Your task to perform on an android device: Check the weather Image 0: 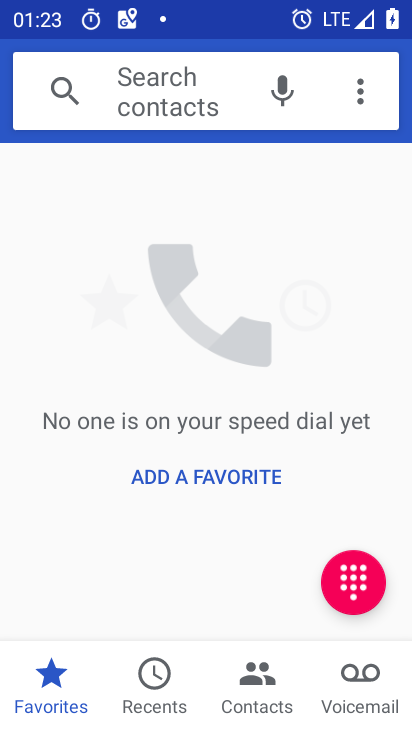
Step 0: press home button
Your task to perform on an android device: Check the weather Image 1: 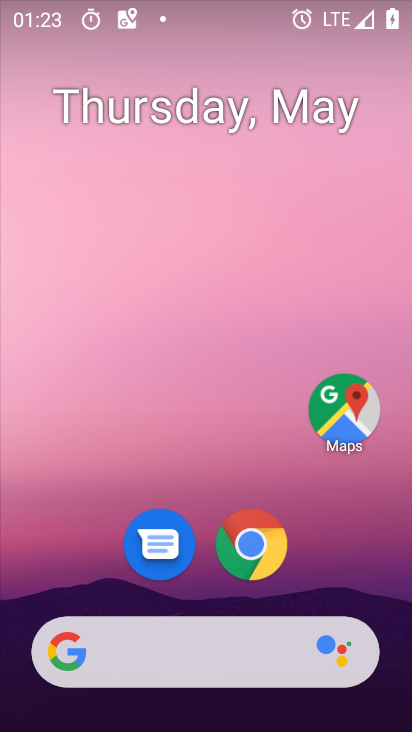
Step 1: drag from (363, 563) to (339, 135)
Your task to perform on an android device: Check the weather Image 2: 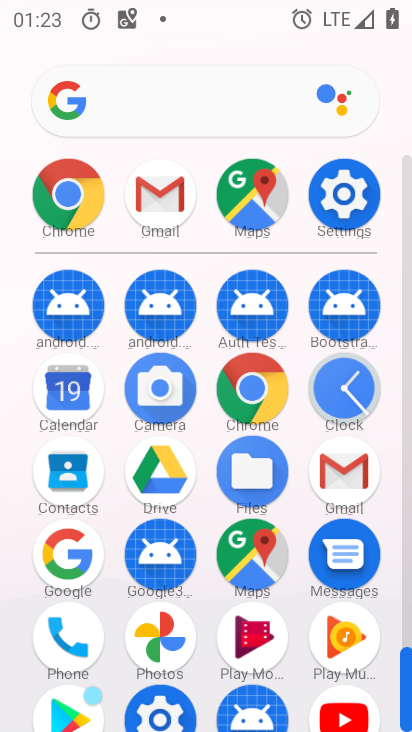
Step 2: click (186, 100)
Your task to perform on an android device: Check the weather Image 3: 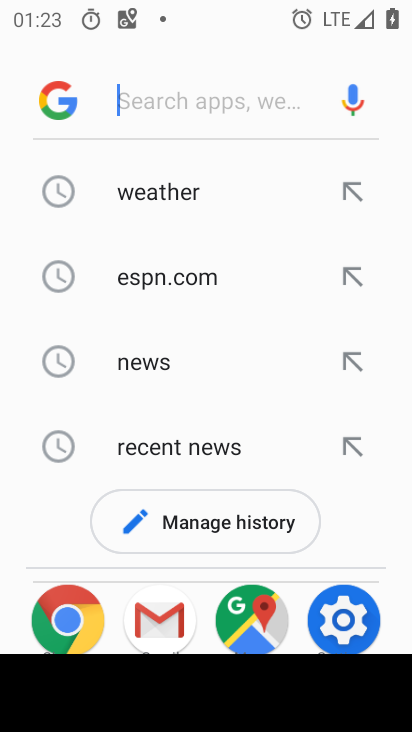
Step 3: click (205, 199)
Your task to perform on an android device: Check the weather Image 4: 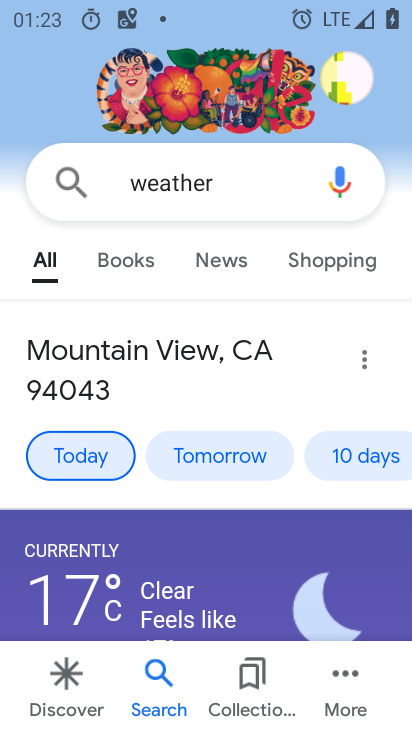
Step 4: task complete